Your task to perform on an android device: delete location history Image 0: 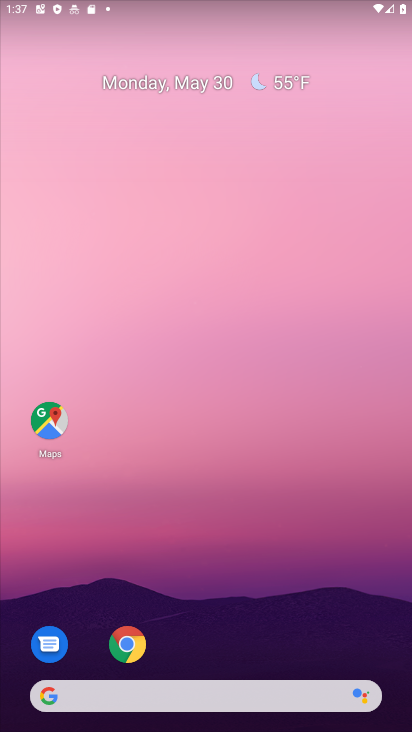
Step 0: drag from (311, 641) to (228, 5)
Your task to perform on an android device: delete location history Image 1: 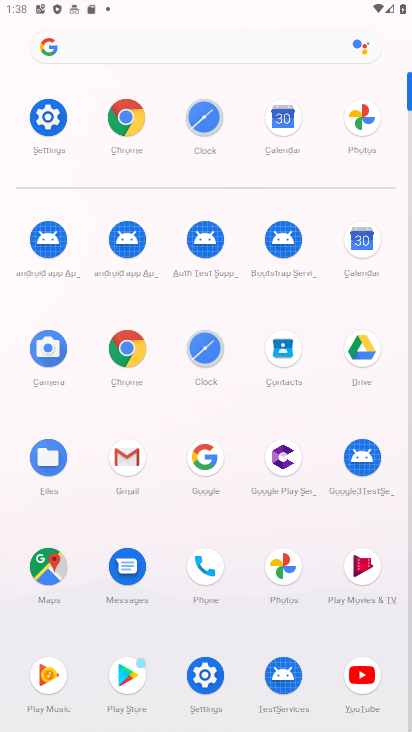
Step 1: click (42, 104)
Your task to perform on an android device: delete location history Image 2: 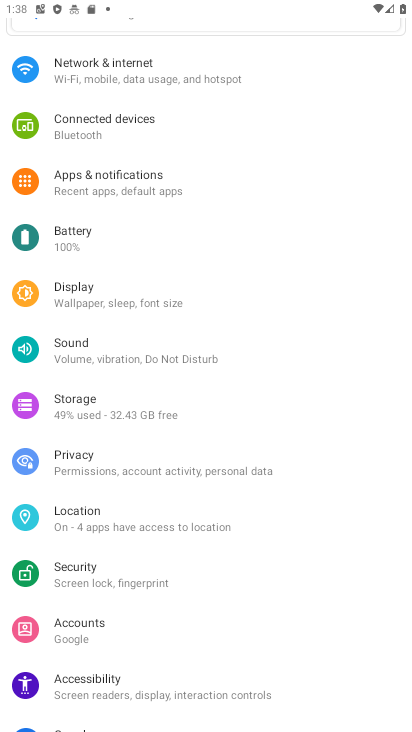
Step 2: click (202, 515)
Your task to perform on an android device: delete location history Image 3: 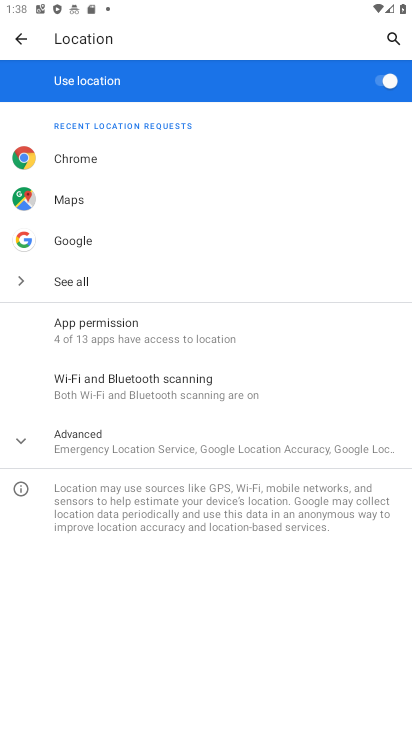
Step 3: task complete